Your task to perform on an android device: read, delete, or share a saved page in the chrome app Image 0: 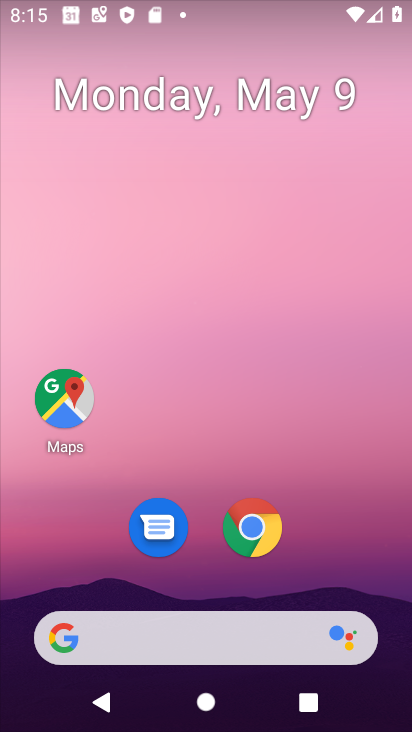
Step 0: drag from (237, 7) to (293, 560)
Your task to perform on an android device: read, delete, or share a saved page in the chrome app Image 1: 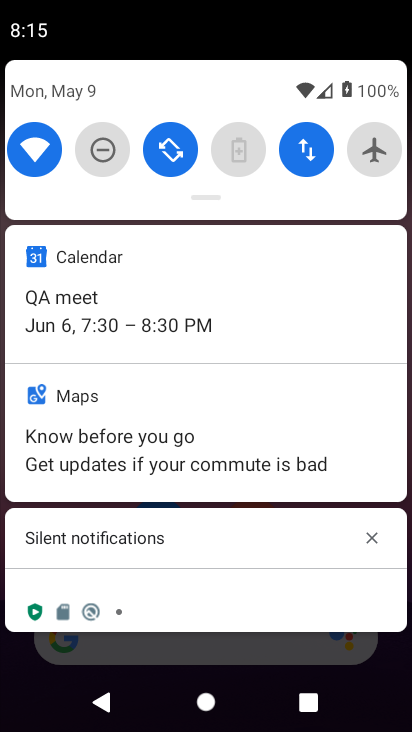
Step 1: drag from (268, 678) to (268, 176)
Your task to perform on an android device: read, delete, or share a saved page in the chrome app Image 2: 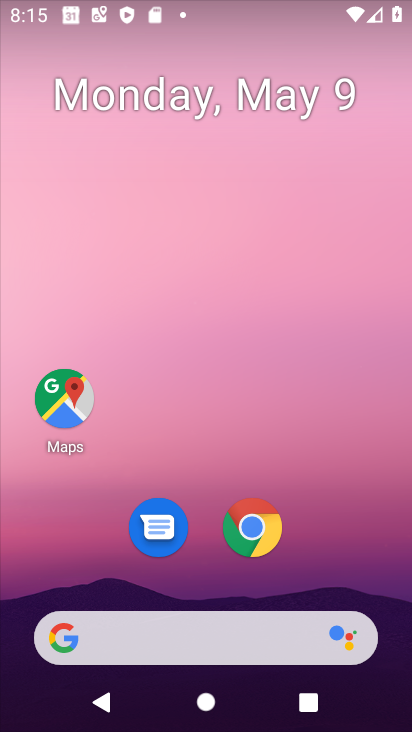
Step 2: click (249, 522)
Your task to perform on an android device: read, delete, or share a saved page in the chrome app Image 3: 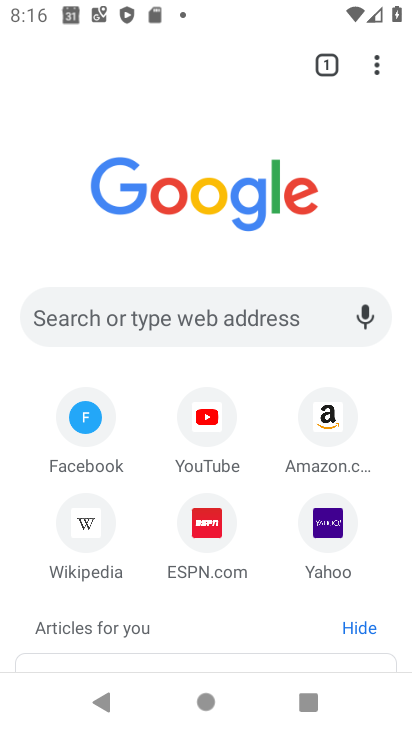
Step 3: click (375, 59)
Your task to perform on an android device: read, delete, or share a saved page in the chrome app Image 4: 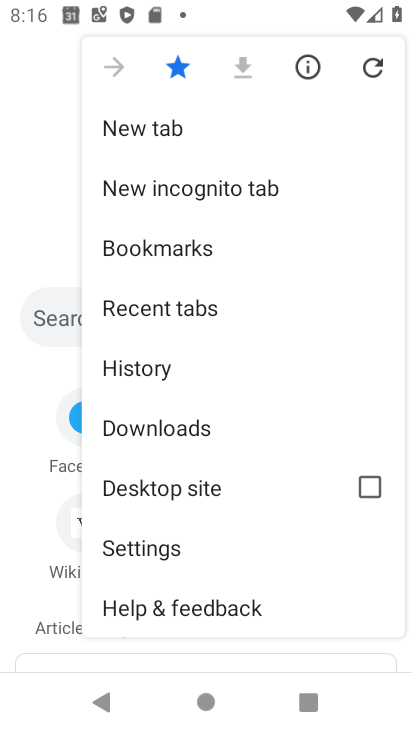
Step 4: click (227, 427)
Your task to perform on an android device: read, delete, or share a saved page in the chrome app Image 5: 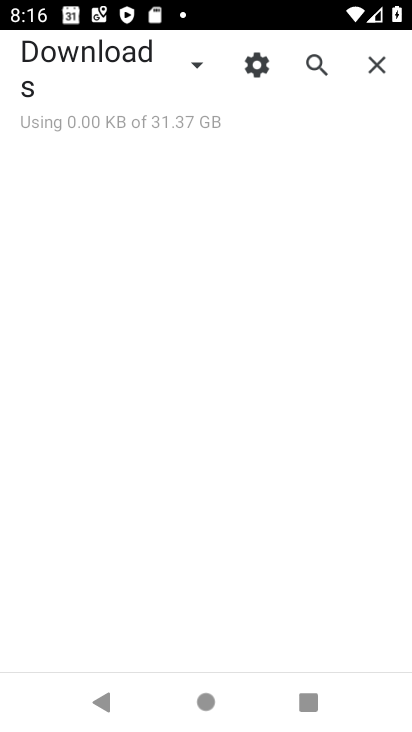
Step 5: task complete